Your task to perform on an android device: set the stopwatch Image 0: 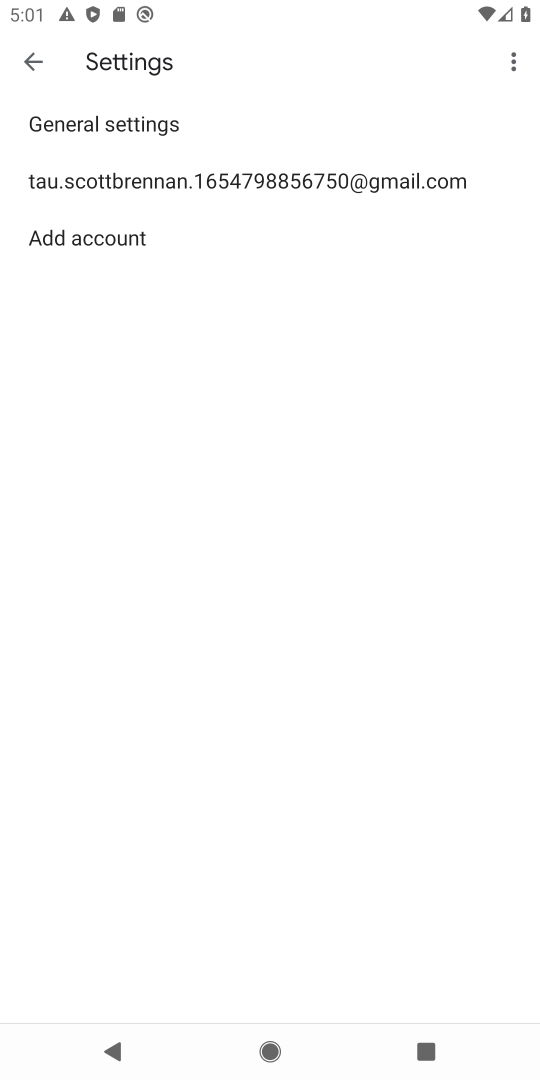
Step 0: press home button
Your task to perform on an android device: set the stopwatch Image 1: 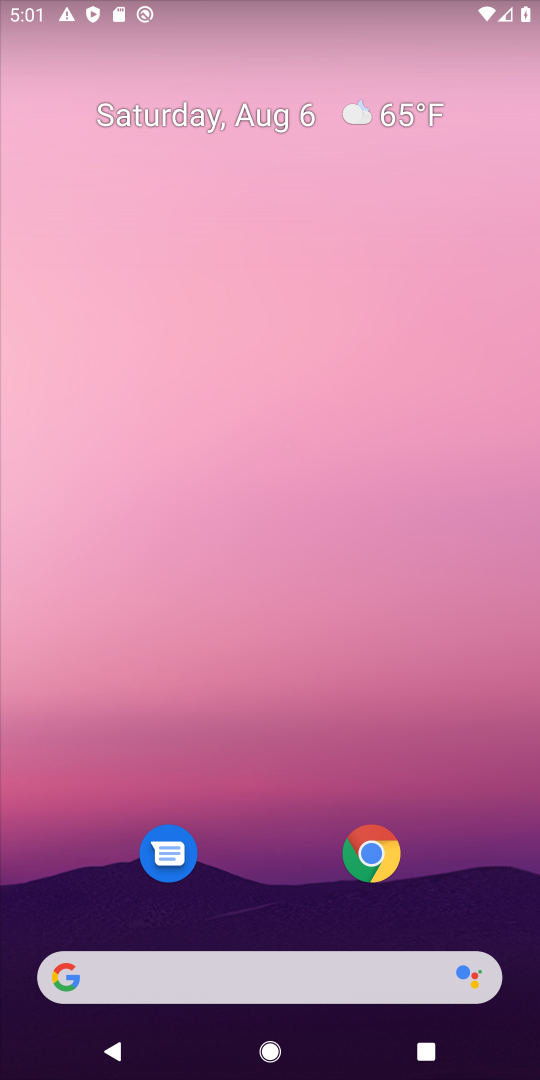
Step 1: drag from (262, 821) to (189, 3)
Your task to perform on an android device: set the stopwatch Image 2: 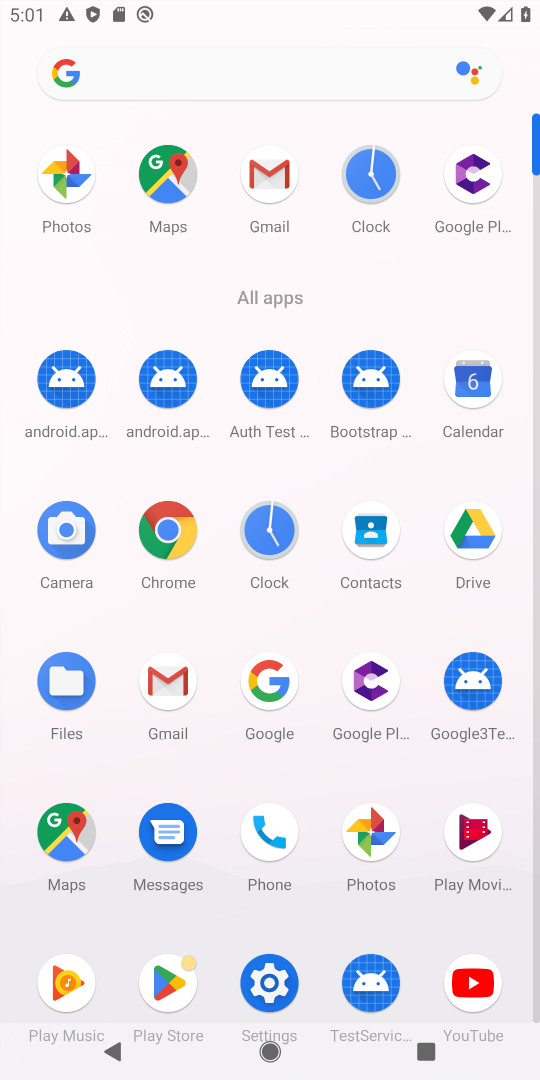
Step 2: click (286, 520)
Your task to perform on an android device: set the stopwatch Image 3: 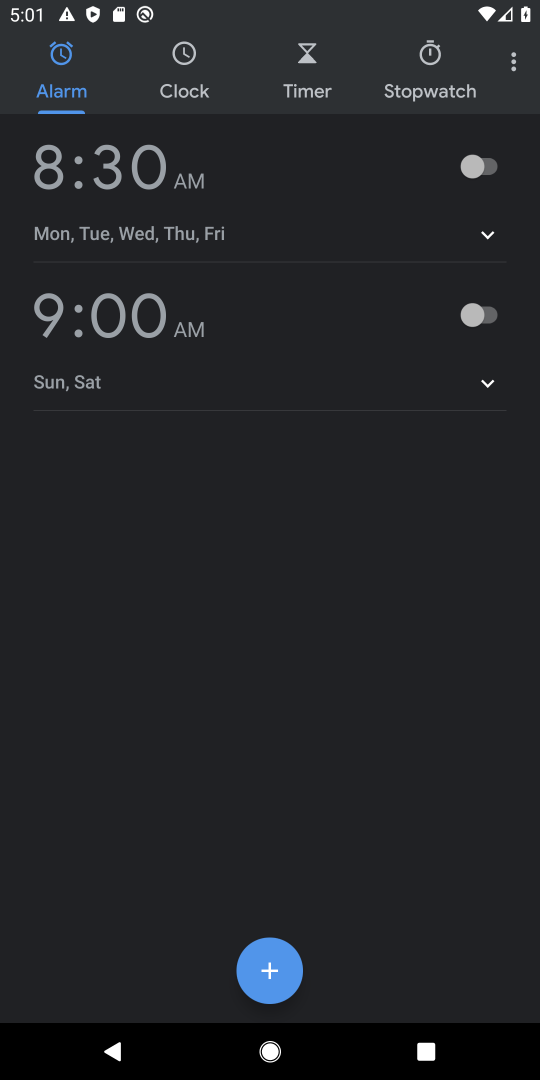
Step 3: click (414, 93)
Your task to perform on an android device: set the stopwatch Image 4: 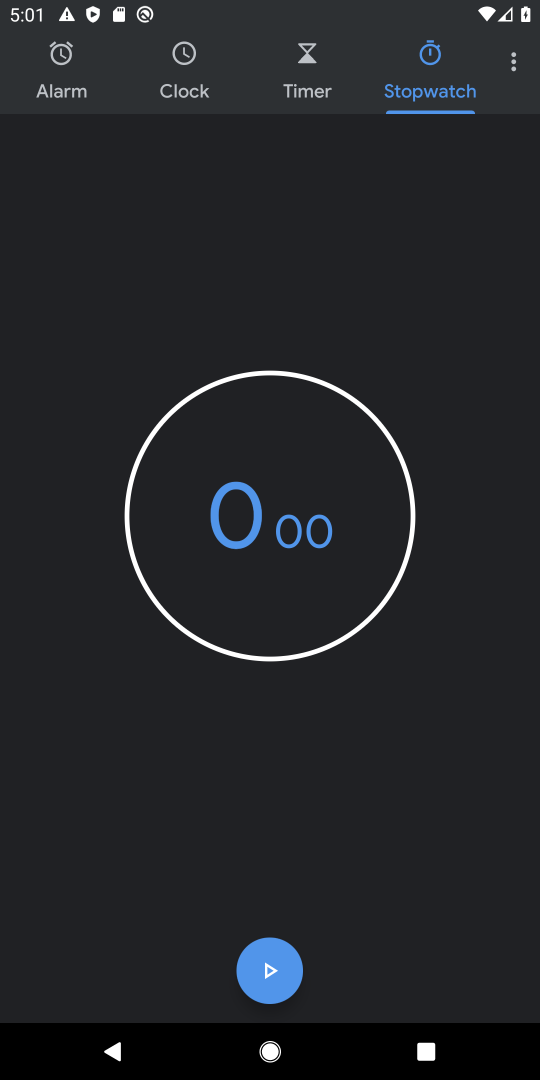
Step 4: click (276, 969)
Your task to perform on an android device: set the stopwatch Image 5: 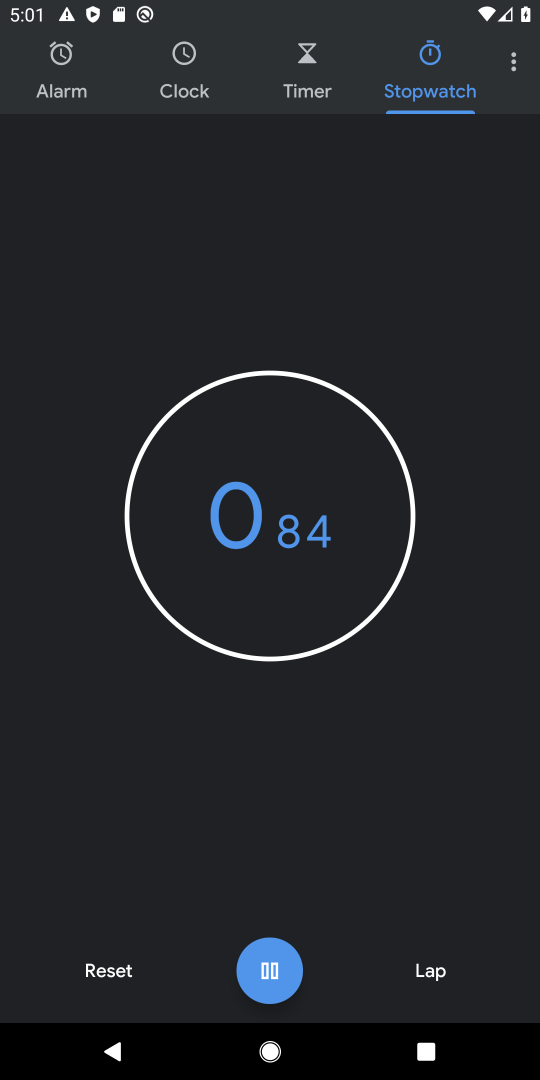
Step 5: click (276, 969)
Your task to perform on an android device: set the stopwatch Image 6: 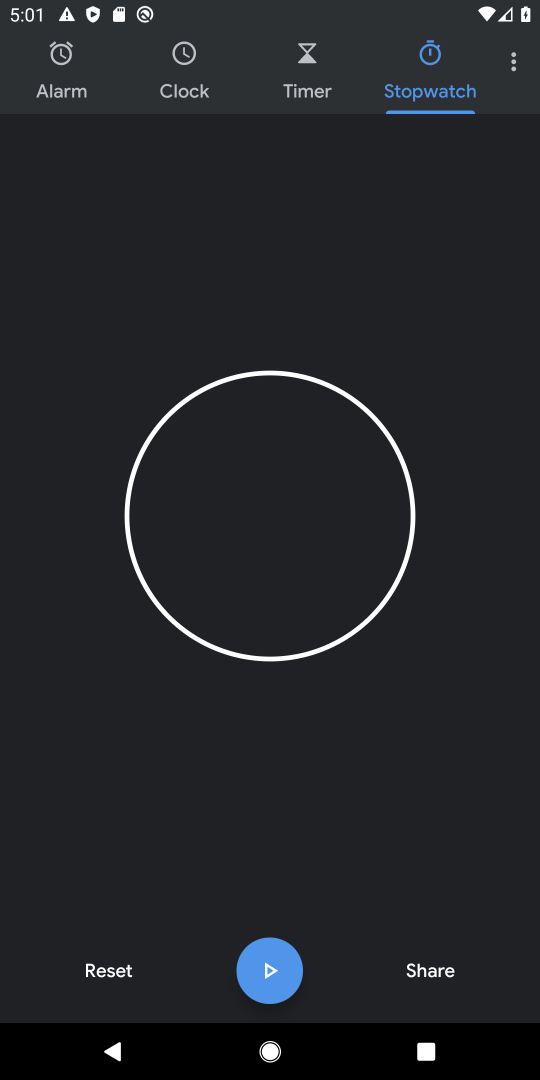
Step 6: task complete